Your task to perform on an android device: Search for "lg ultragear" on amazon.com, select the first entry, and add it to the cart. Image 0: 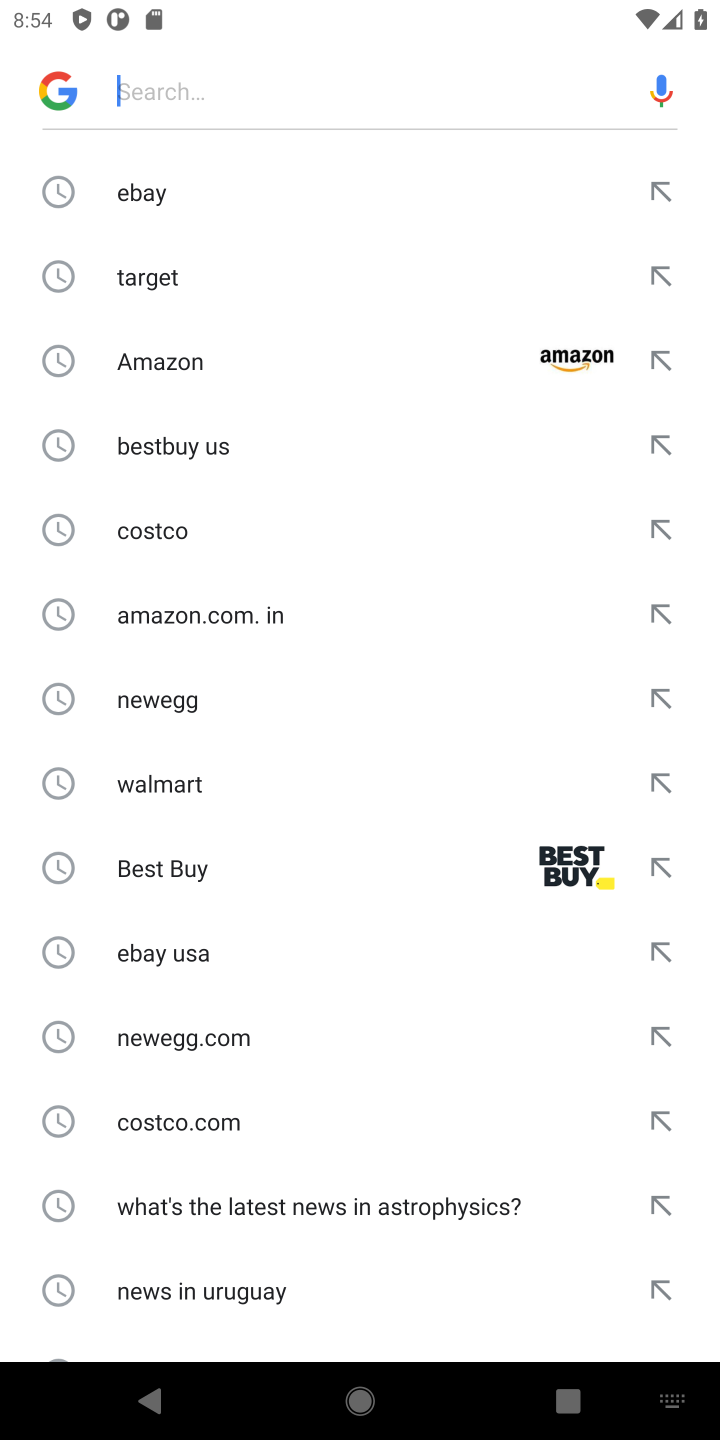
Step 0: click (191, 100)
Your task to perform on an android device: Search for "lg ultragear" on amazon.com, select the first entry, and add it to the cart. Image 1: 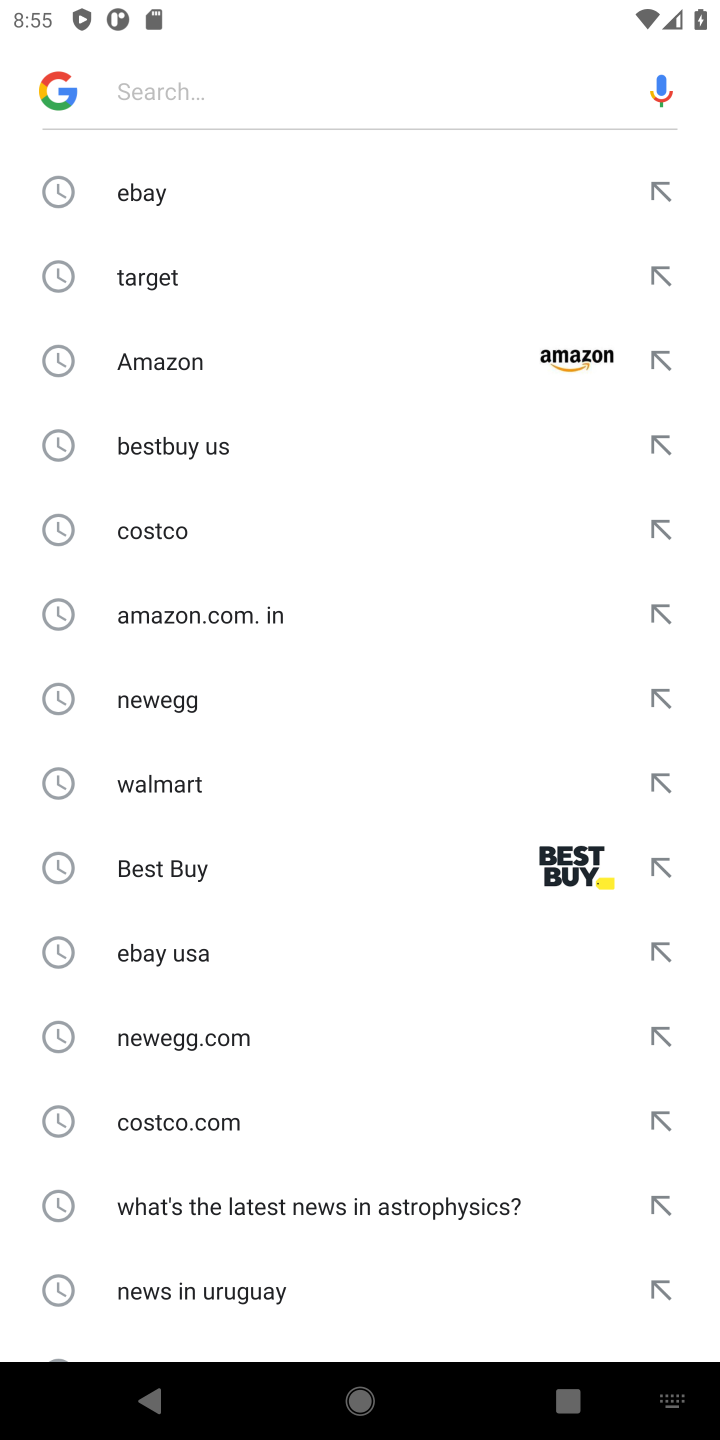
Step 1: type "amazon.com"
Your task to perform on an android device: Search for "lg ultragear" on amazon.com, select the first entry, and add it to the cart. Image 2: 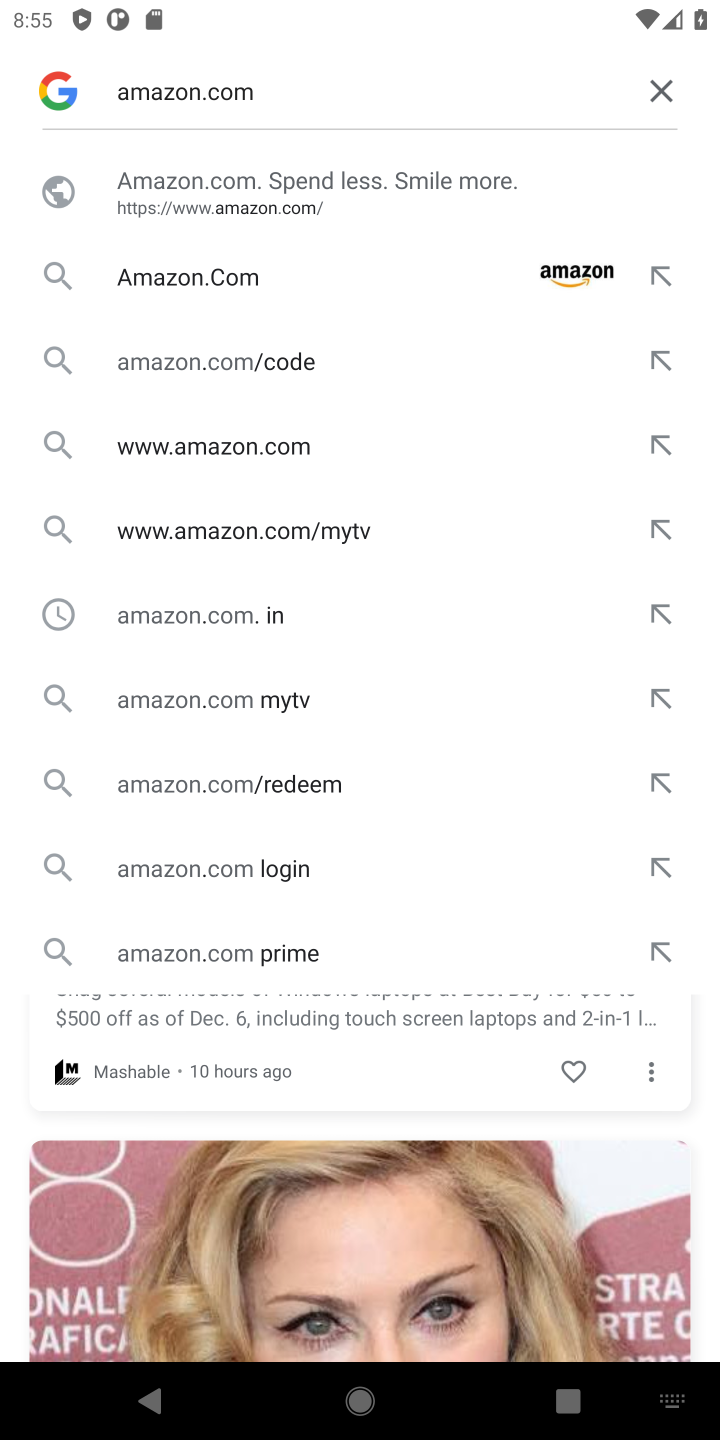
Step 2: click (184, 194)
Your task to perform on an android device: Search for "lg ultragear" on amazon.com, select the first entry, and add it to the cart. Image 3: 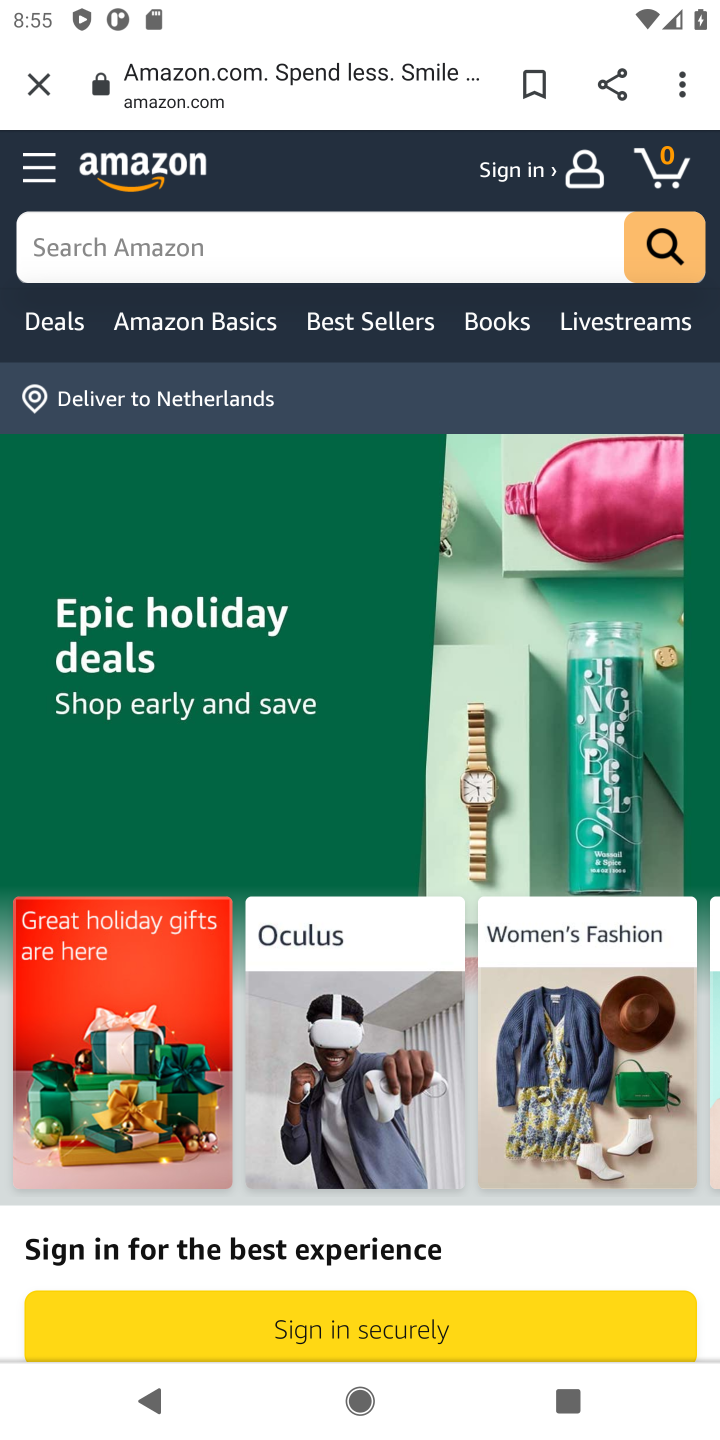
Step 3: click (89, 249)
Your task to perform on an android device: Search for "lg ultragear" on amazon.com, select the first entry, and add it to the cart. Image 4: 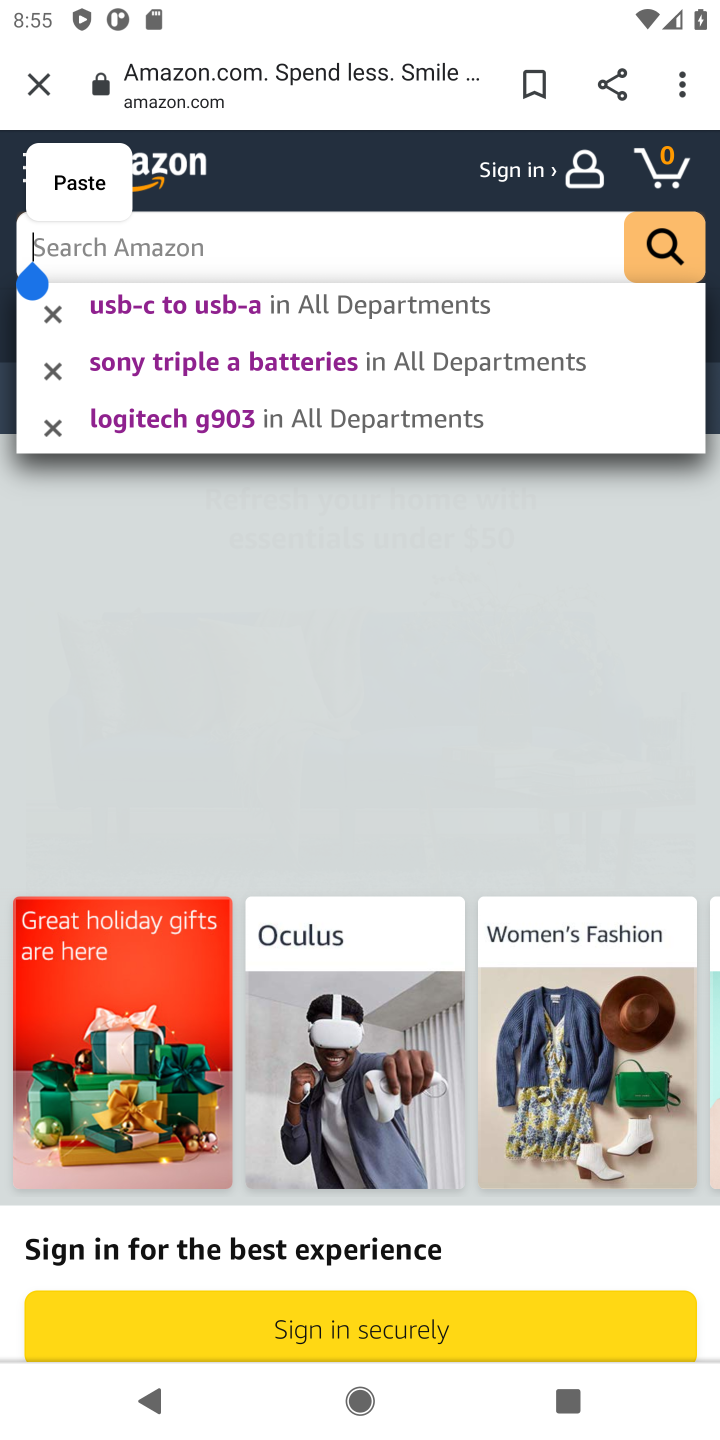
Step 4: type "lg ultragear"
Your task to perform on an android device: Search for "lg ultragear" on amazon.com, select the first entry, and add it to the cart. Image 5: 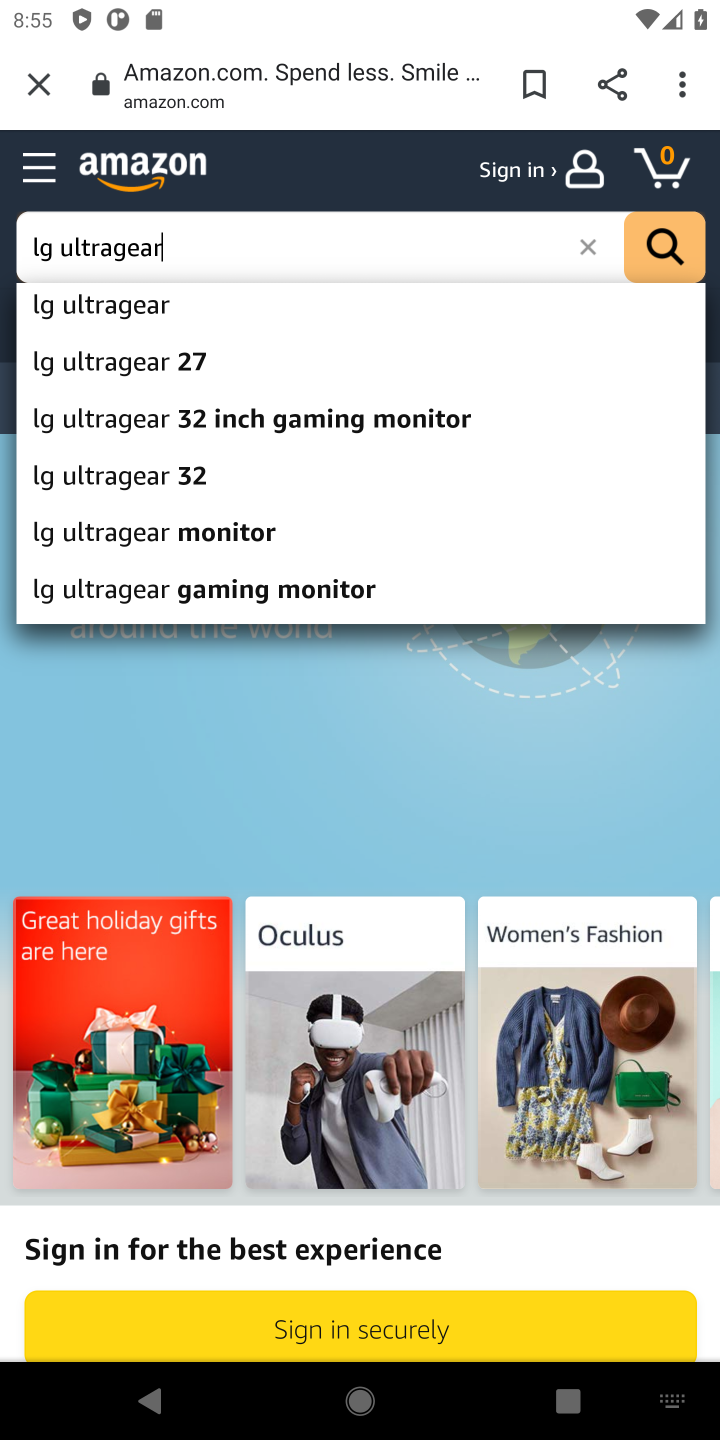
Step 5: click (84, 321)
Your task to perform on an android device: Search for "lg ultragear" on amazon.com, select the first entry, and add it to the cart. Image 6: 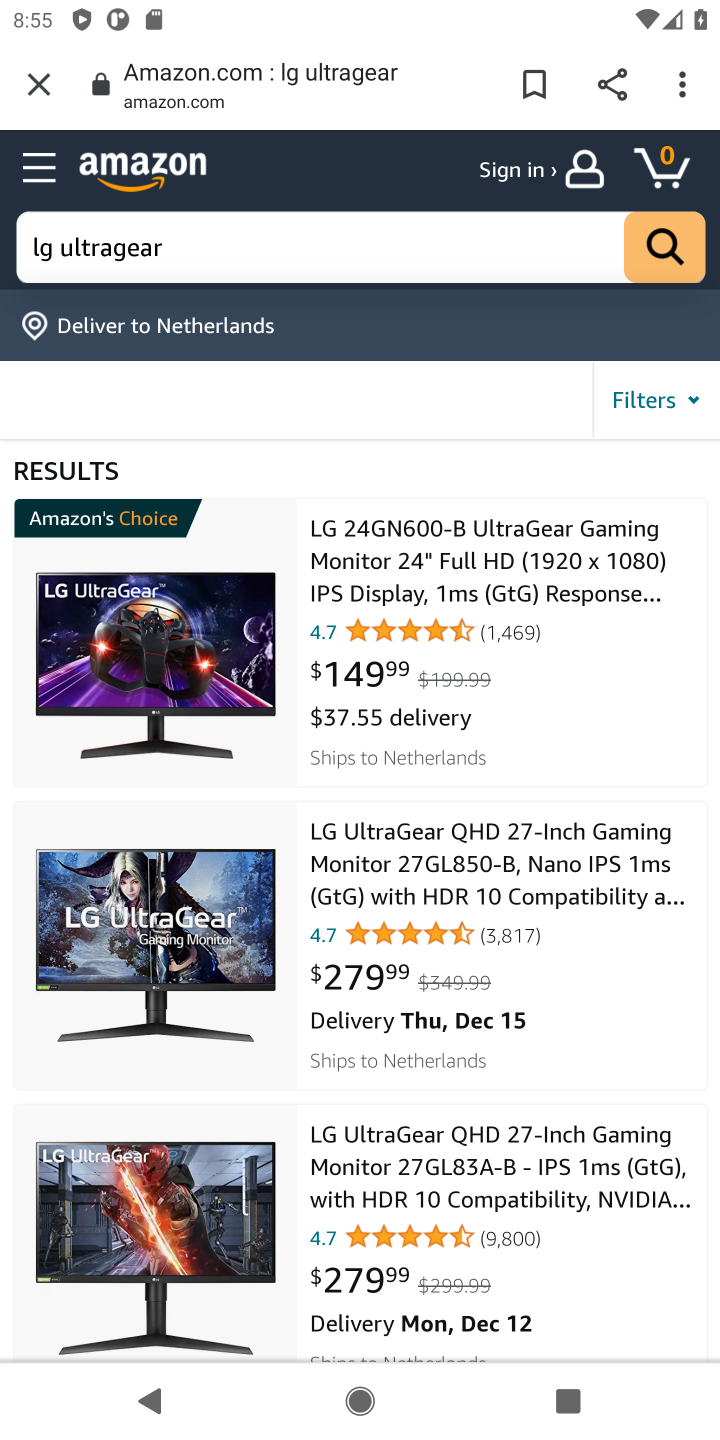
Step 6: click (508, 584)
Your task to perform on an android device: Search for "lg ultragear" on amazon.com, select the first entry, and add it to the cart. Image 7: 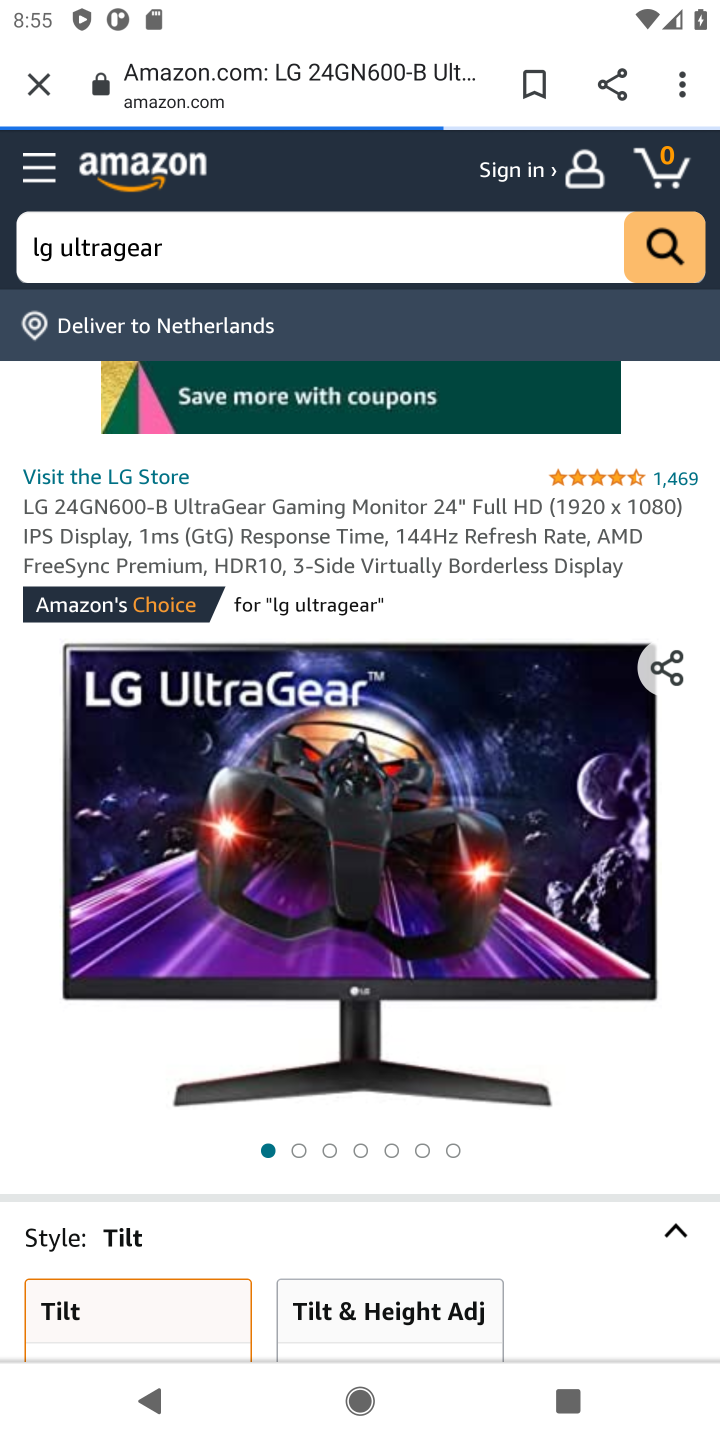
Step 7: drag from (443, 909) to (395, 427)
Your task to perform on an android device: Search for "lg ultragear" on amazon.com, select the first entry, and add it to the cart. Image 8: 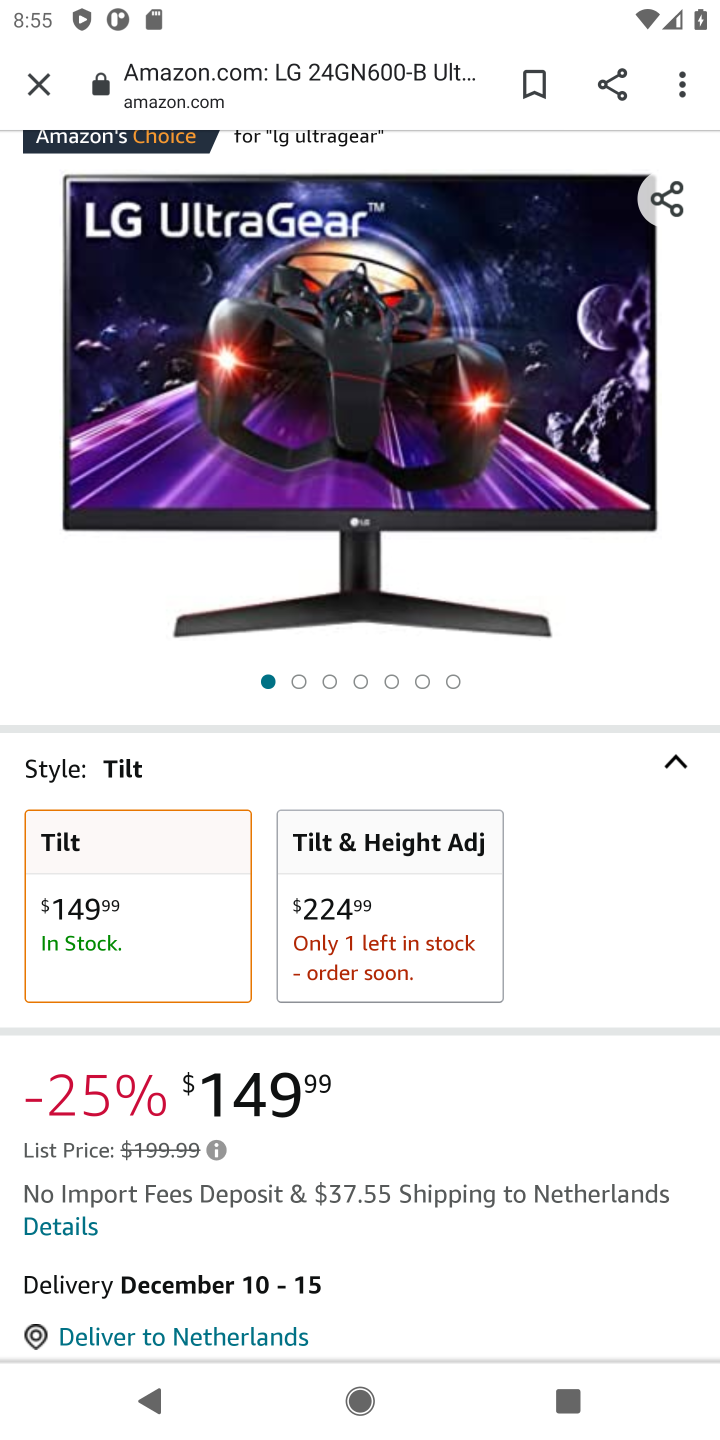
Step 8: drag from (398, 1043) to (383, 577)
Your task to perform on an android device: Search for "lg ultragear" on amazon.com, select the first entry, and add it to the cart. Image 9: 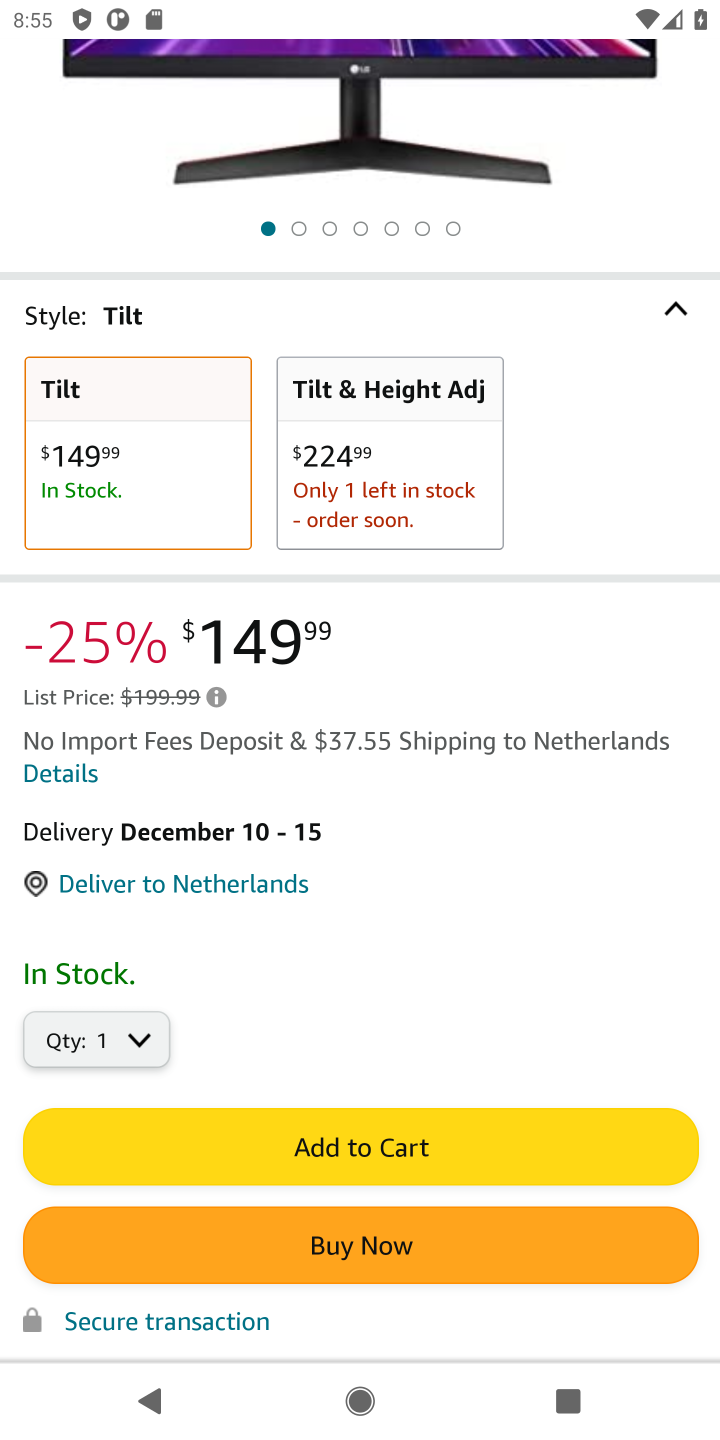
Step 9: click (315, 1136)
Your task to perform on an android device: Search for "lg ultragear" on amazon.com, select the first entry, and add it to the cart. Image 10: 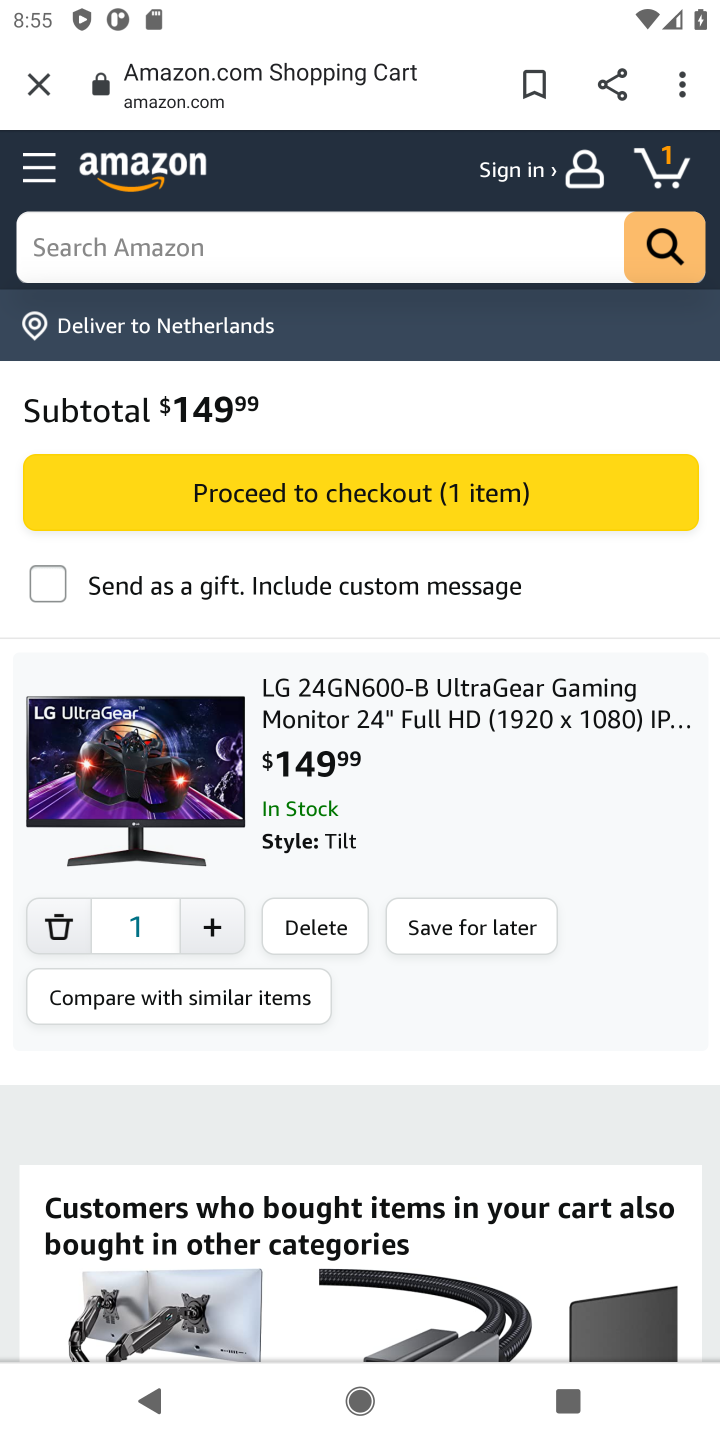
Step 10: task complete